Your task to perform on an android device: turn on notifications settings in the gmail app Image 0: 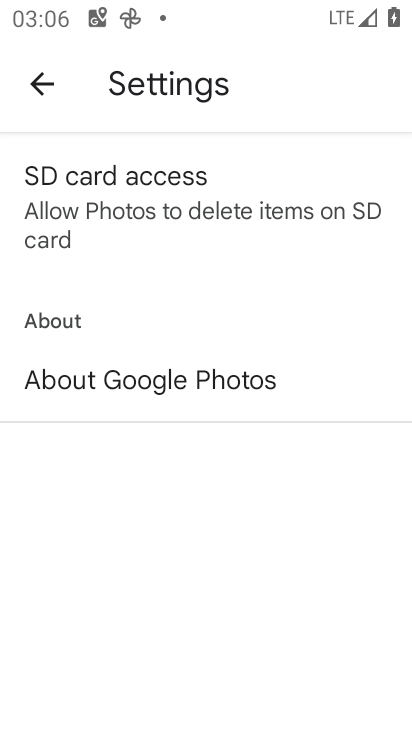
Step 0: press home button
Your task to perform on an android device: turn on notifications settings in the gmail app Image 1: 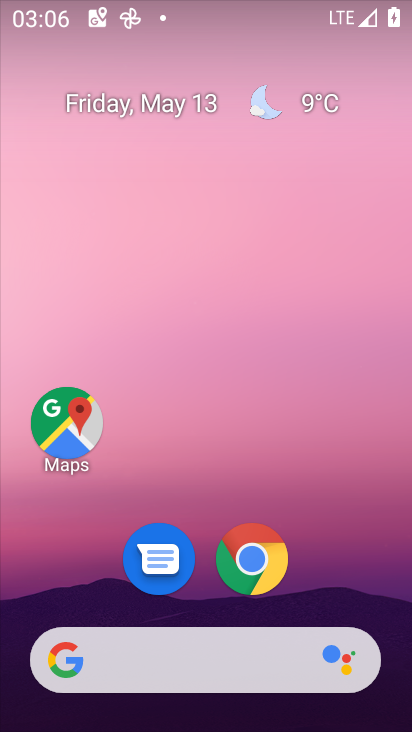
Step 1: drag from (404, 504) to (392, 106)
Your task to perform on an android device: turn on notifications settings in the gmail app Image 2: 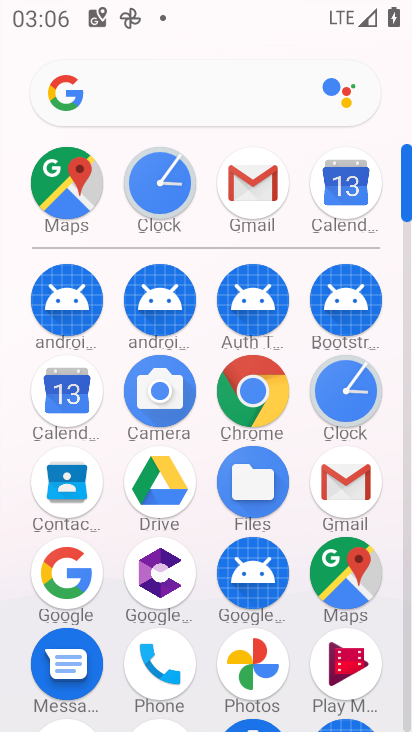
Step 2: click (337, 492)
Your task to perform on an android device: turn on notifications settings in the gmail app Image 3: 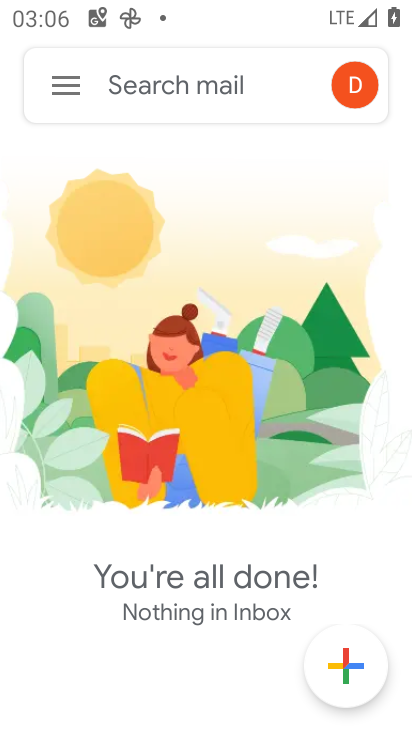
Step 3: click (62, 90)
Your task to perform on an android device: turn on notifications settings in the gmail app Image 4: 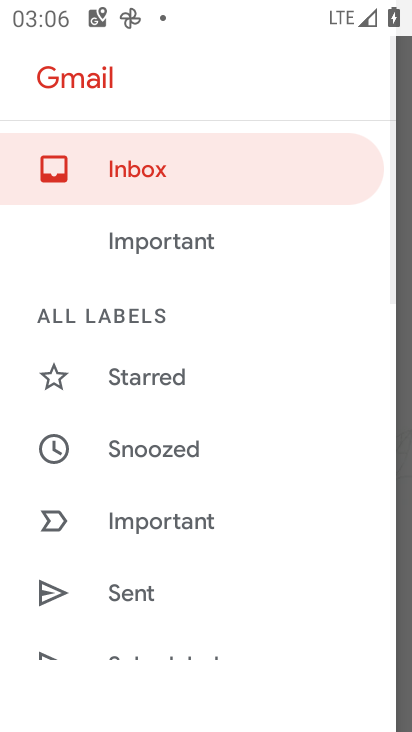
Step 4: drag from (337, 588) to (286, 215)
Your task to perform on an android device: turn on notifications settings in the gmail app Image 5: 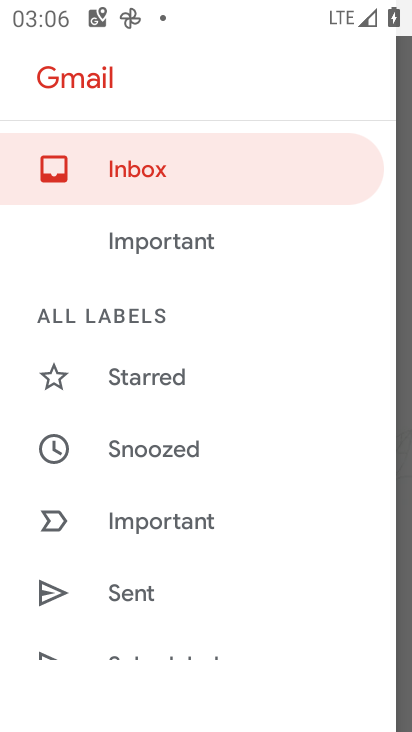
Step 5: drag from (316, 501) to (325, 163)
Your task to perform on an android device: turn on notifications settings in the gmail app Image 6: 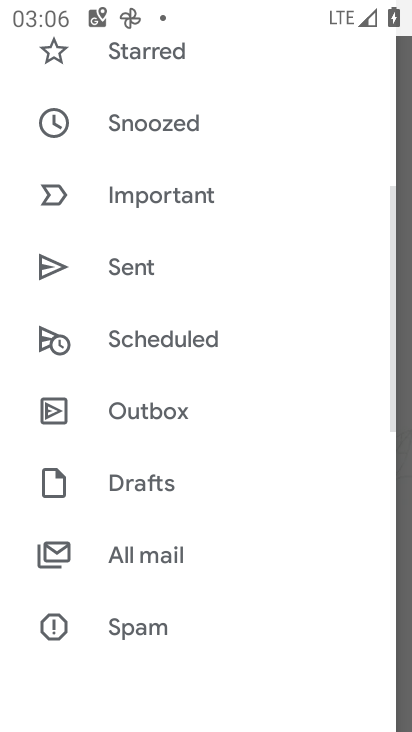
Step 6: drag from (319, 553) to (310, 147)
Your task to perform on an android device: turn on notifications settings in the gmail app Image 7: 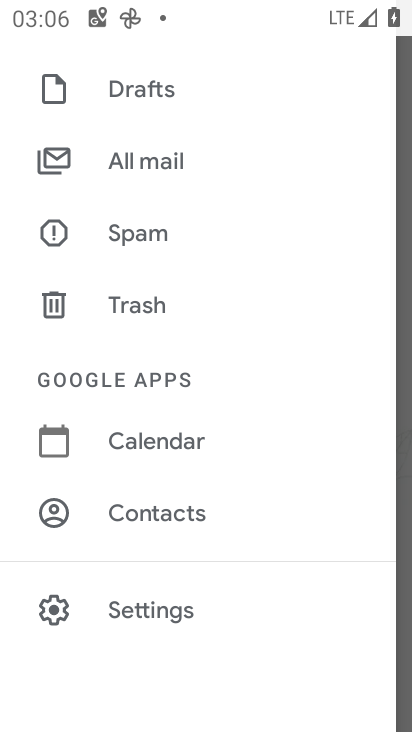
Step 7: click (138, 615)
Your task to perform on an android device: turn on notifications settings in the gmail app Image 8: 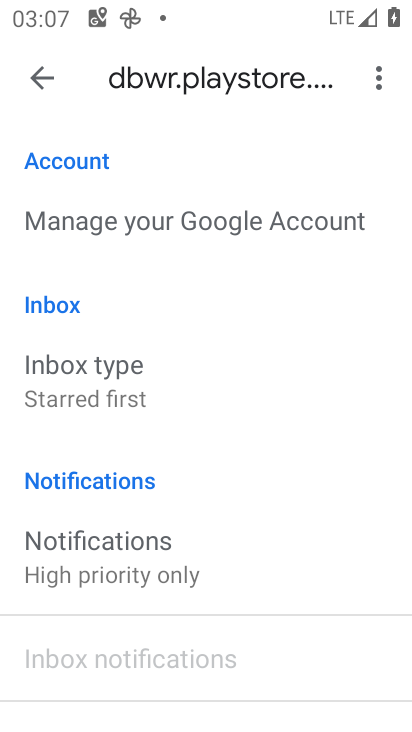
Step 8: click (96, 469)
Your task to perform on an android device: turn on notifications settings in the gmail app Image 9: 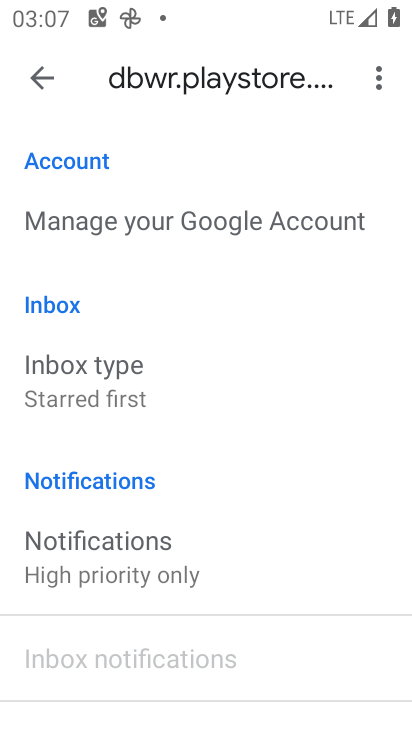
Step 9: click (74, 535)
Your task to perform on an android device: turn on notifications settings in the gmail app Image 10: 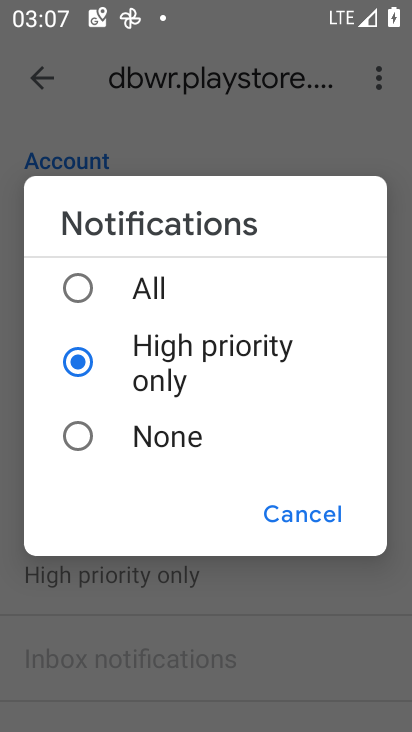
Step 10: click (78, 282)
Your task to perform on an android device: turn on notifications settings in the gmail app Image 11: 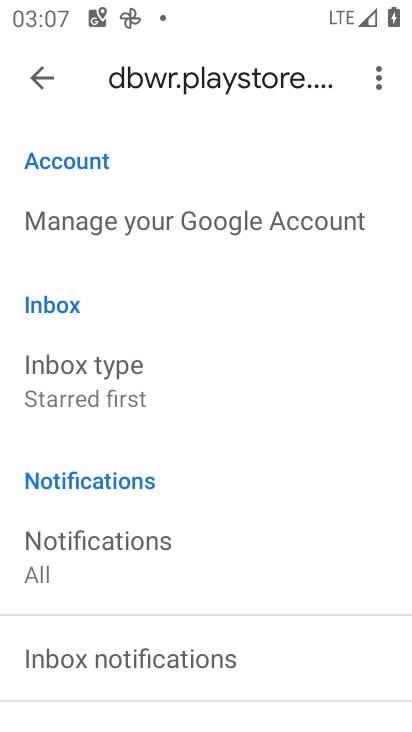
Step 11: task complete